Your task to perform on an android device: Go to Maps Image 0: 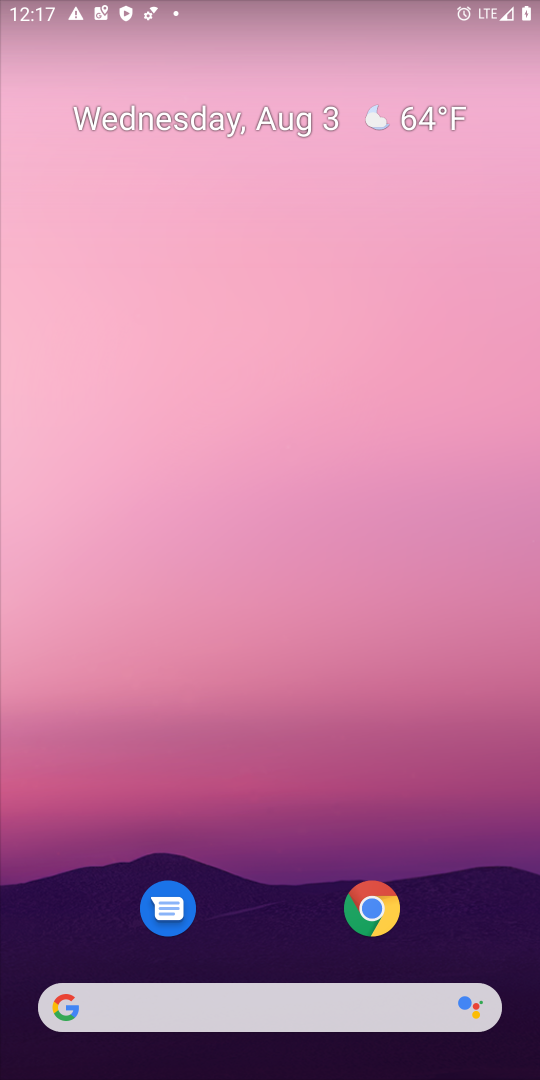
Step 0: drag from (257, 865) to (280, 117)
Your task to perform on an android device: Go to Maps Image 1: 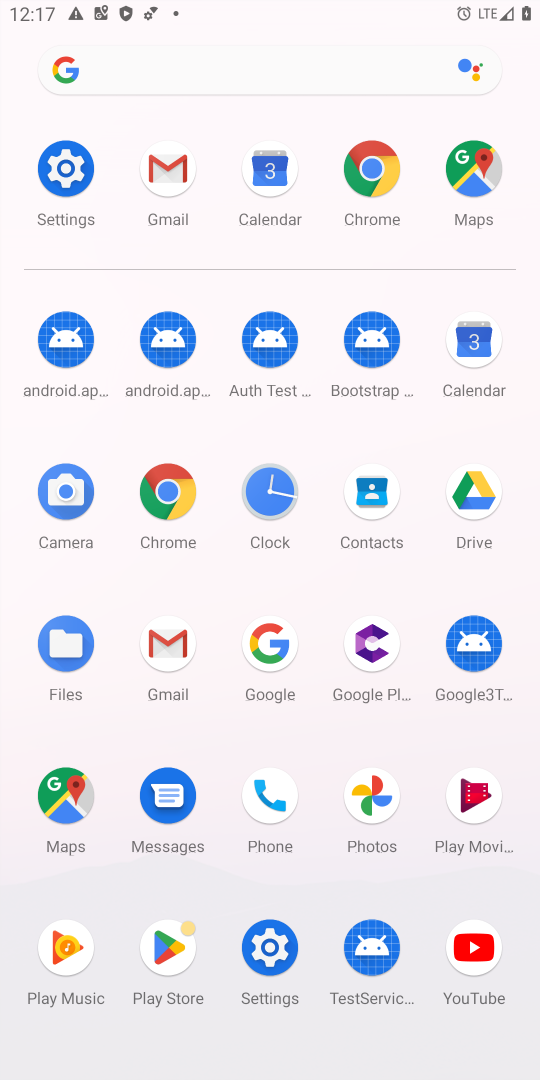
Step 1: click (72, 787)
Your task to perform on an android device: Go to Maps Image 2: 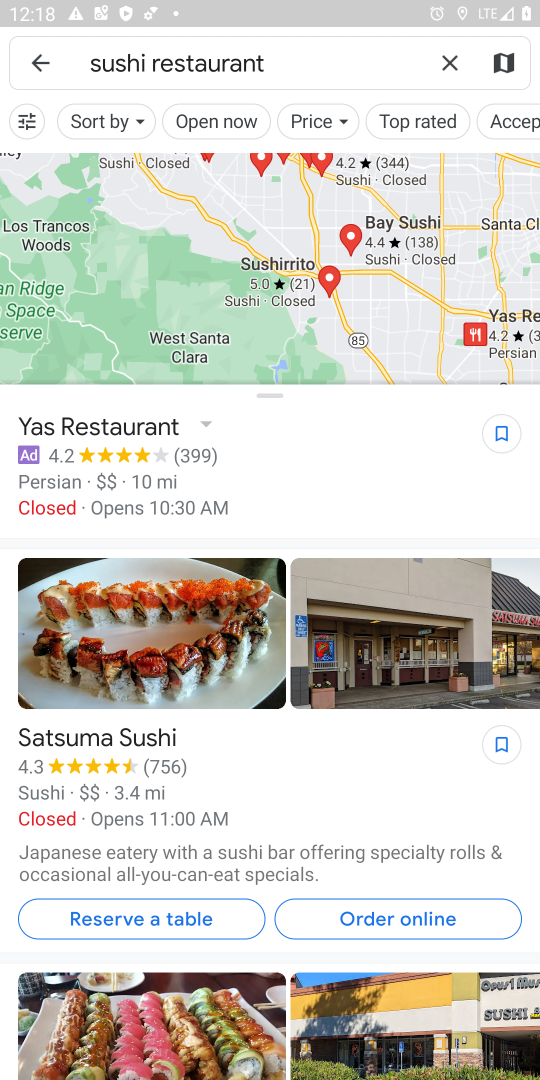
Step 2: task complete